Your task to perform on an android device: Check the latest 3D printers on Target. Image 0: 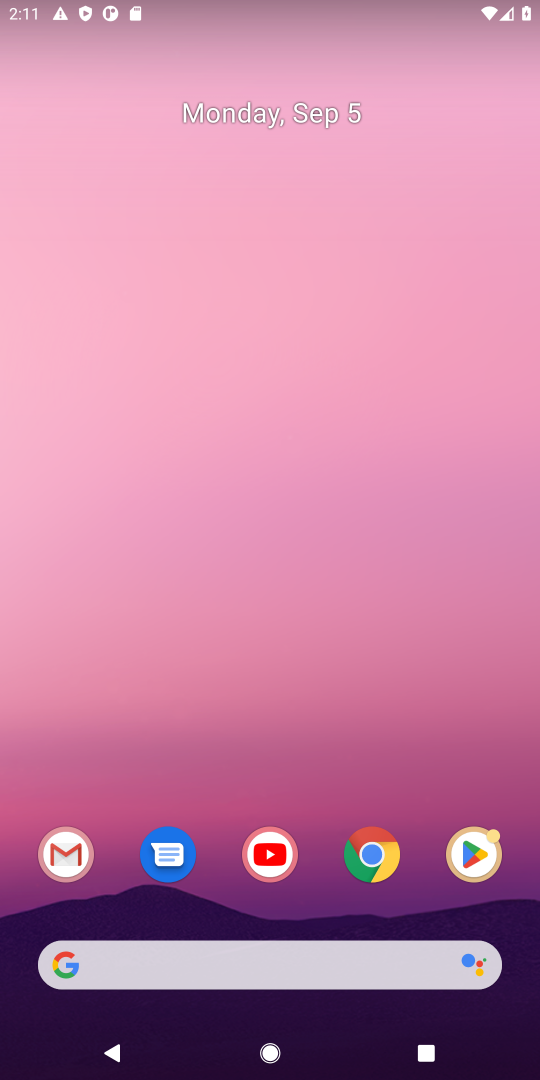
Step 0: click (335, 965)
Your task to perform on an android device: Check the latest 3D printers on Target. Image 1: 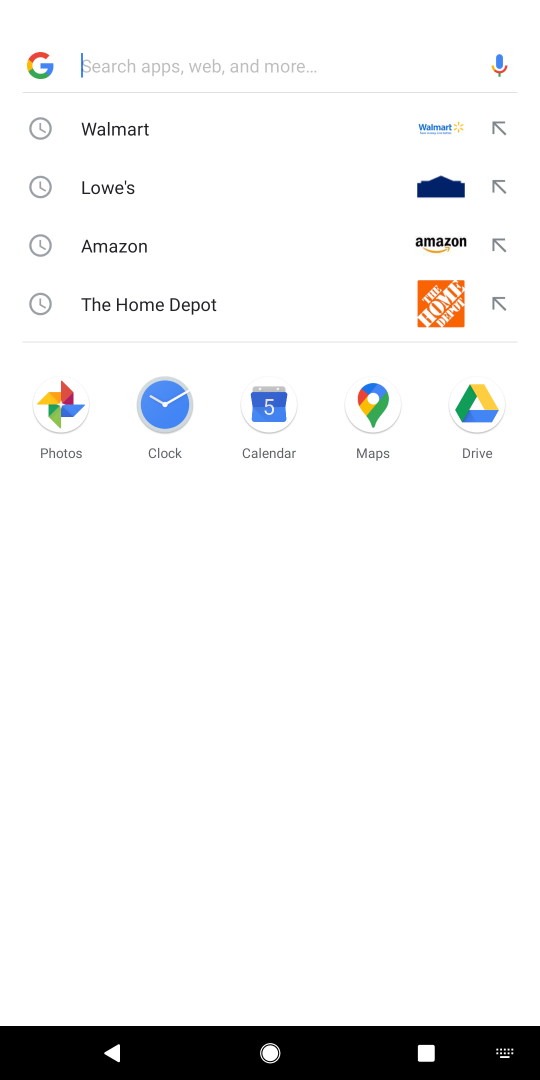
Step 1: type "target"
Your task to perform on an android device: Check the latest 3D printers on Target. Image 2: 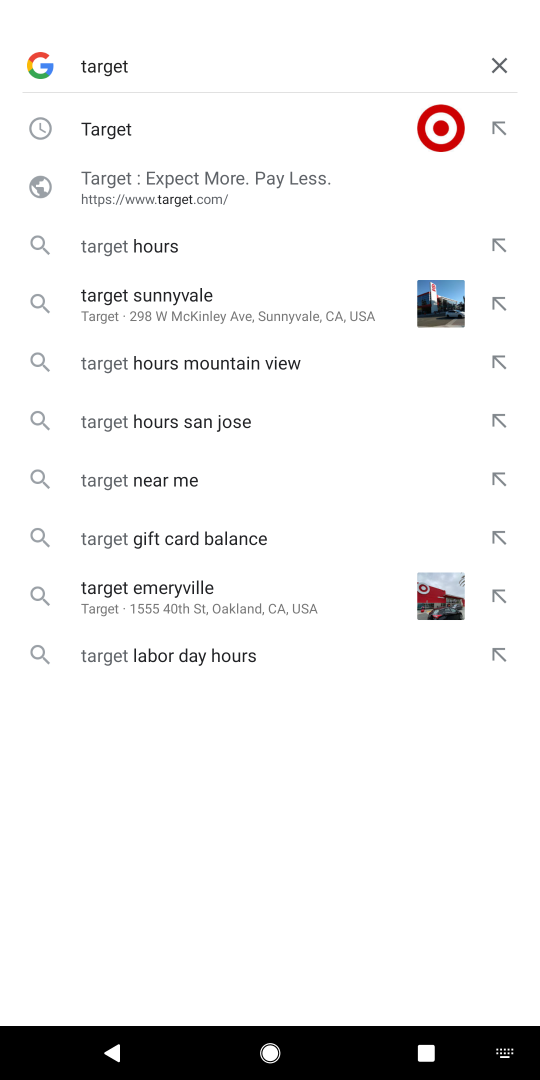
Step 2: press enter
Your task to perform on an android device: Check the latest 3D printers on Target. Image 3: 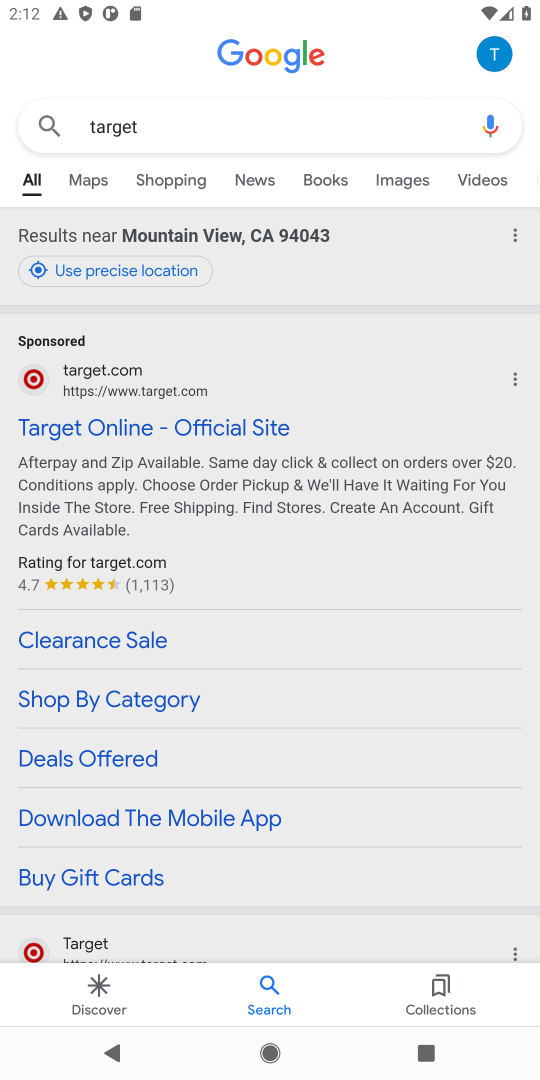
Step 3: click (159, 422)
Your task to perform on an android device: Check the latest 3D printers on Target. Image 4: 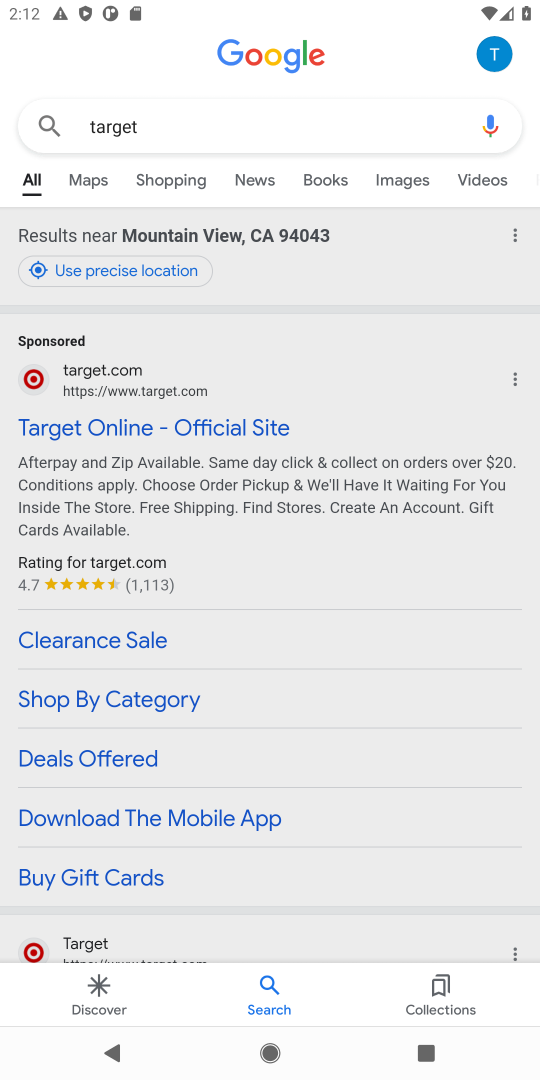
Step 4: click (183, 435)
Your task to perform on an android device: Check the latest 3D printers on Target. Image 5: 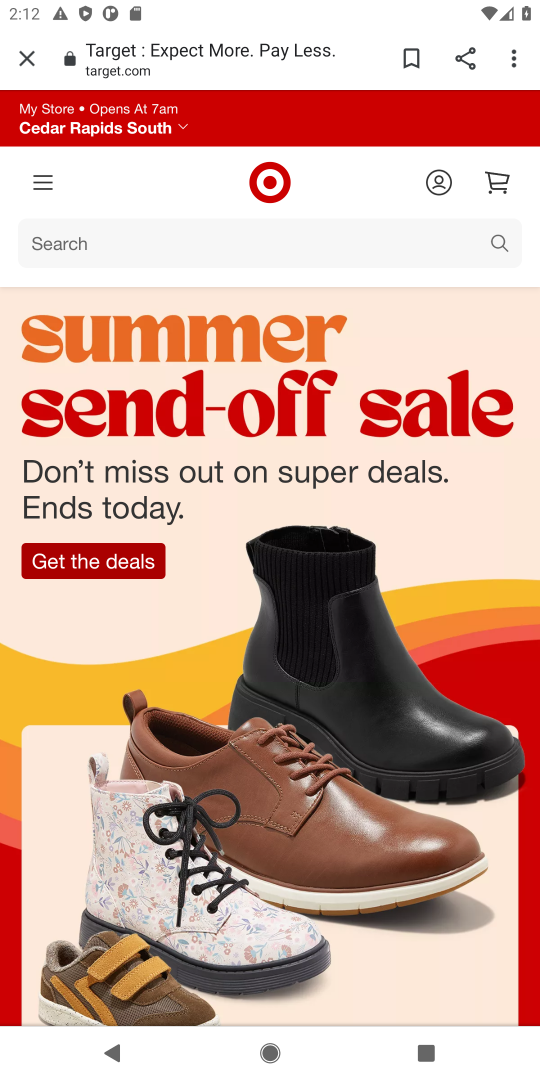
Step 5: click (111, 256)
Your task to perform on an android device: Check the latest 3D printers on Target. Image 6: 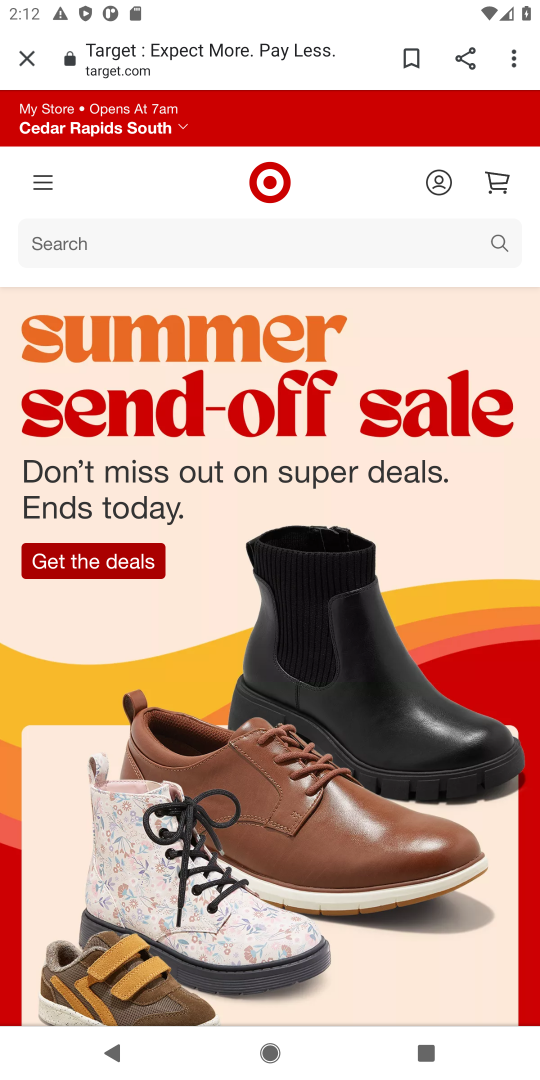
Step 6: click (80, 245)
Your task to perform on an android device: Check the latest 3D printers on Target. Image 7: 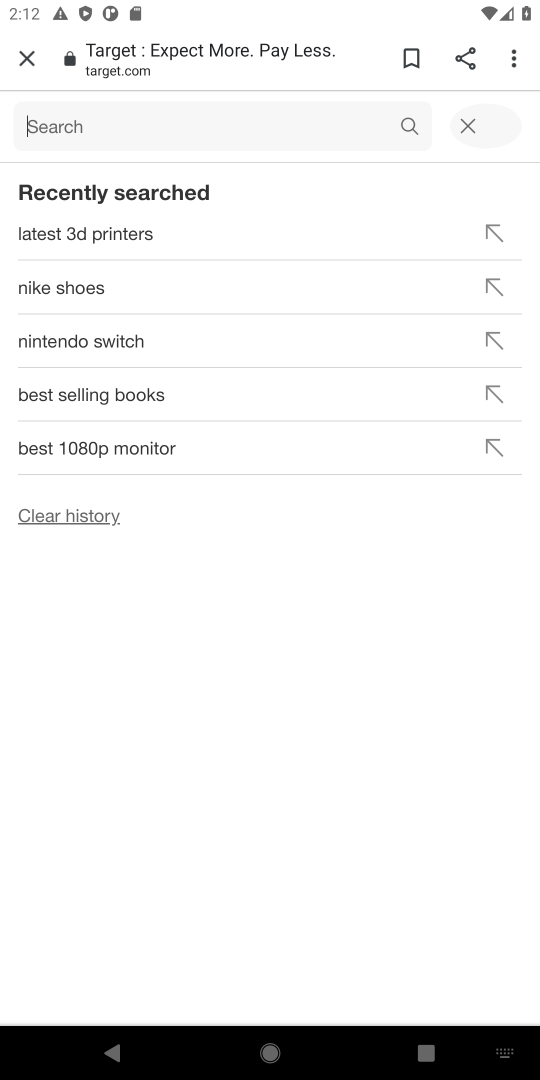
Step 7: type "latest 3d printers"
Your task to perform on an android device: Check the latest 3D printers on Target. Image 8: 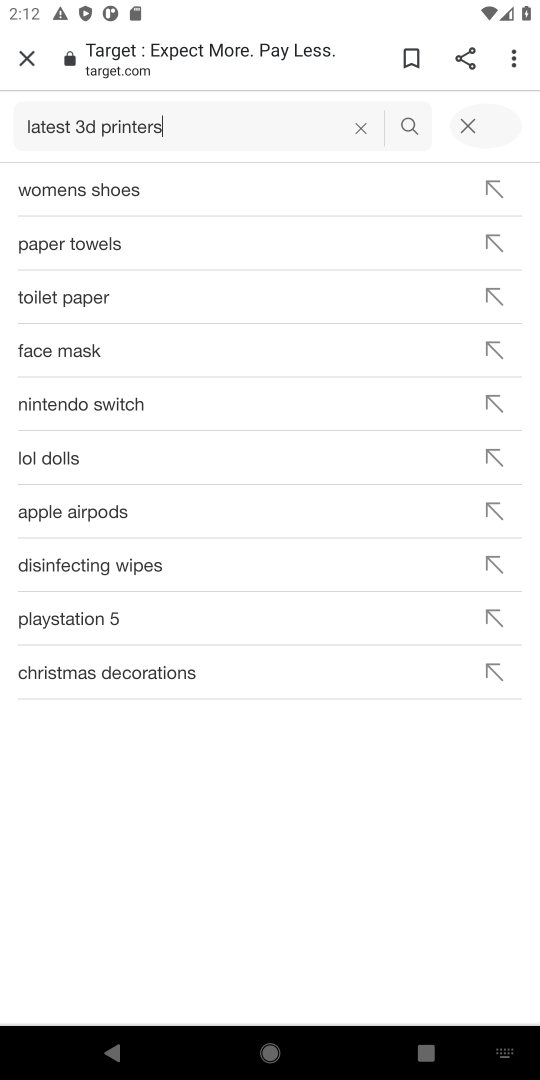
Step 8: press enter
Your task to perform on an android device: Check the latest 3D printers on Target. Image 9: 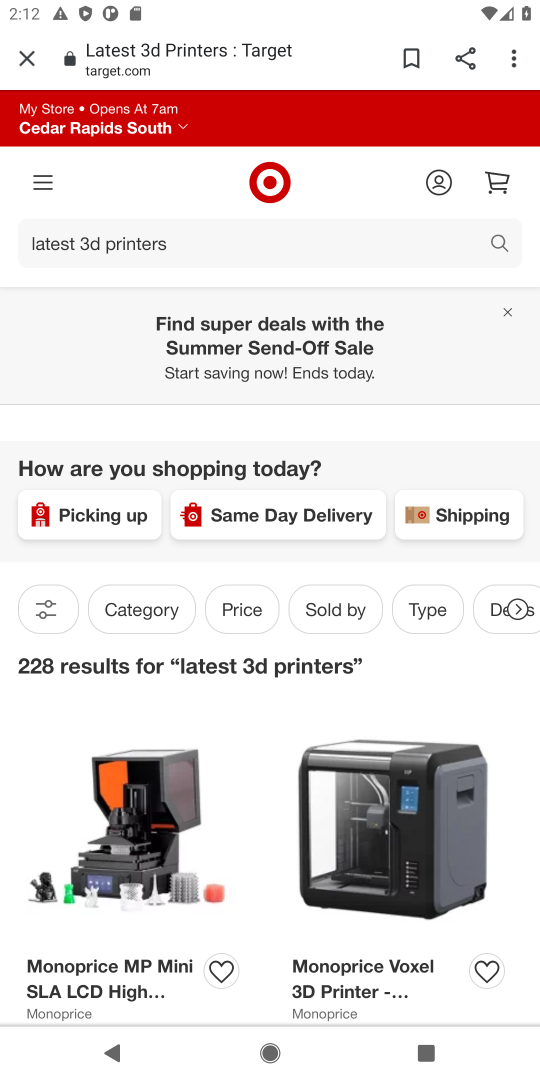
Step 9: task complete